Your task to perform on an android device: Turn off the flashlight Image 0: 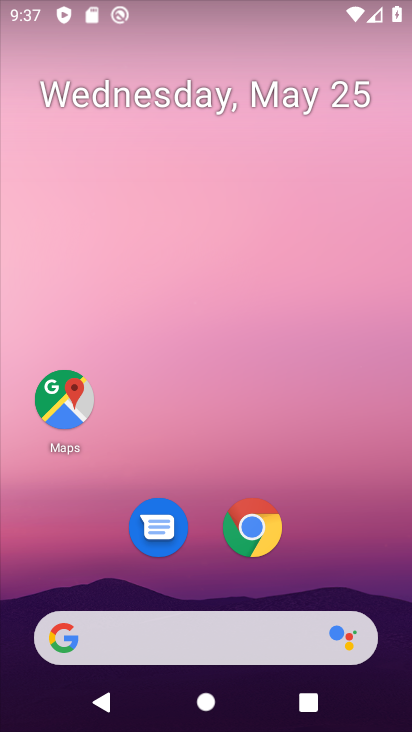
Step 0: drag from (333, 538) to (266, 76)
Your task to perform on an android device: Turn off the flashlight Image 1: 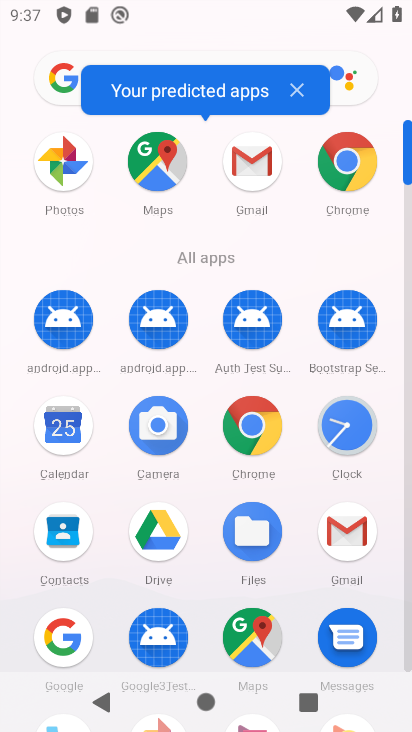
Step 1: drag from (203, 538) to (235, 270)
Your task to perform on an android device: Turn off the flashlight Image 2: 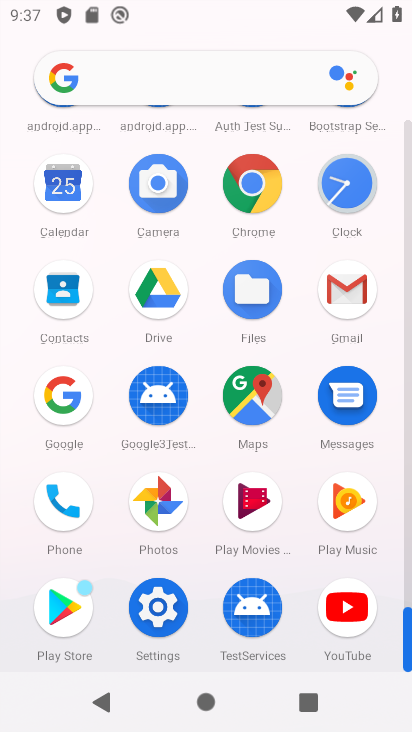
Step 2: click (156, 607)
Your task to perform on an android device: Turn off the flashlight Image 3: 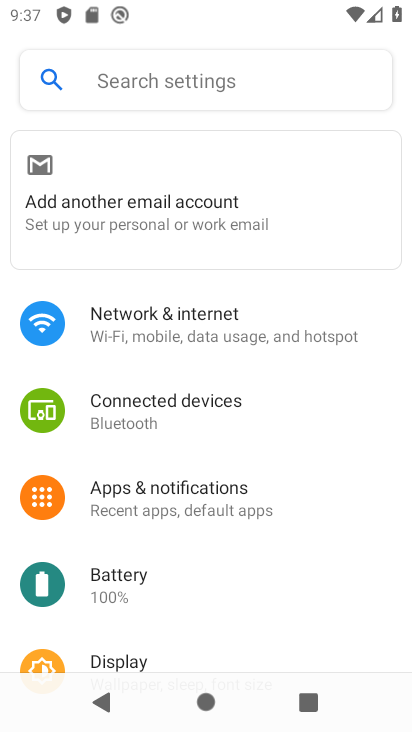
Step 3: drag from (183, 551) to (281, 439)
Your task to perform on an android device: Turn off the flashlight Image 4: 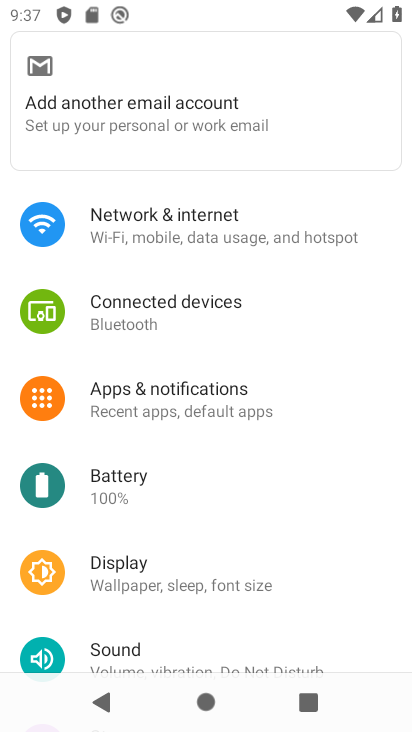
Step 4: click (236, 584)
Your task to perform on an android device: Turn off the flashlight Image 5: 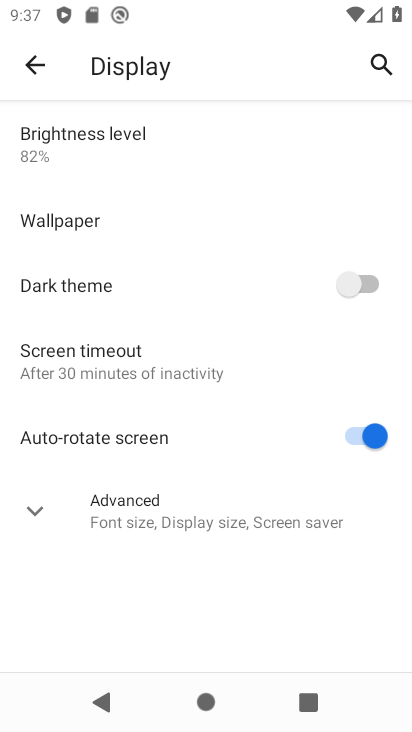
Step 5: press back button
Your task to perform on an android device: Turn off the flashlight Image 6: 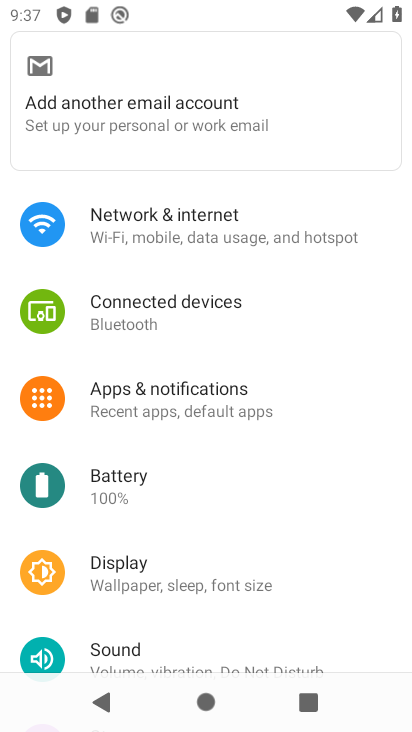
Step 6: drag from (210, 544) to (284, 425)
Your task to perform on an android device: Turn off the flashlight Image 7: 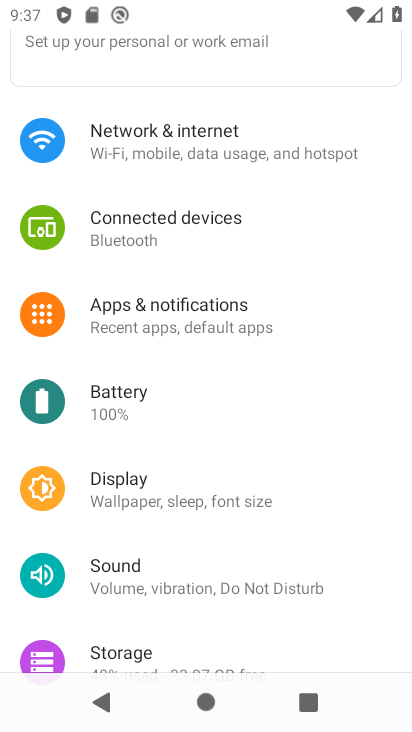
Step 7: drag from (175, 605) to (281, 479)
Your task to perform on an android device: Turn off the flashlight Image 8: 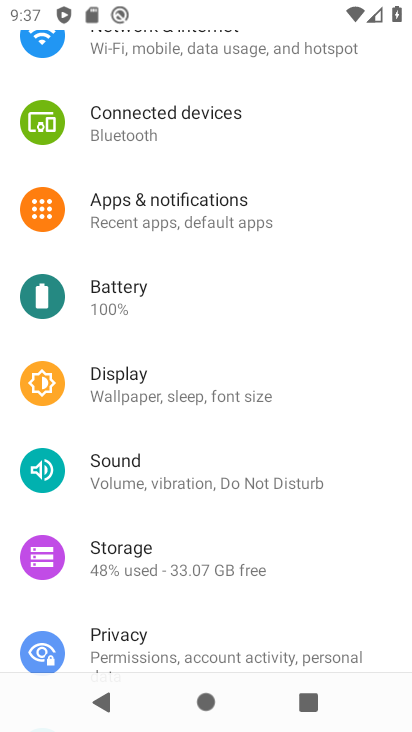
Step 8: drag from (174, 609) to (269, 504)
Your task to perform on an android device: Turn off the flashlight Image 9: 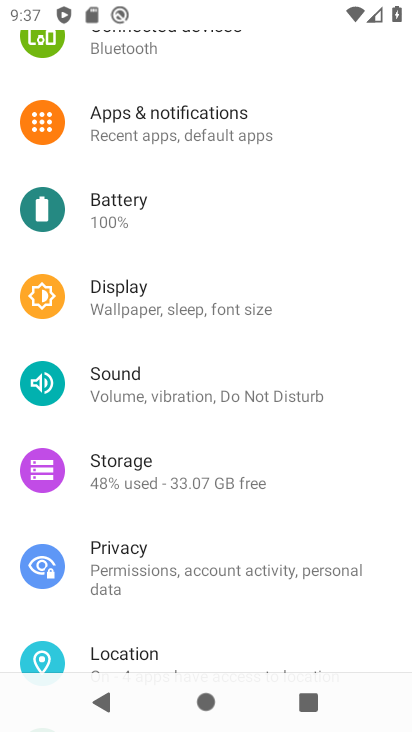
Step 9: drag from (167, 597) to (244, 504)
Your task to perform on an android device: Turn off the flashlight Image 10: 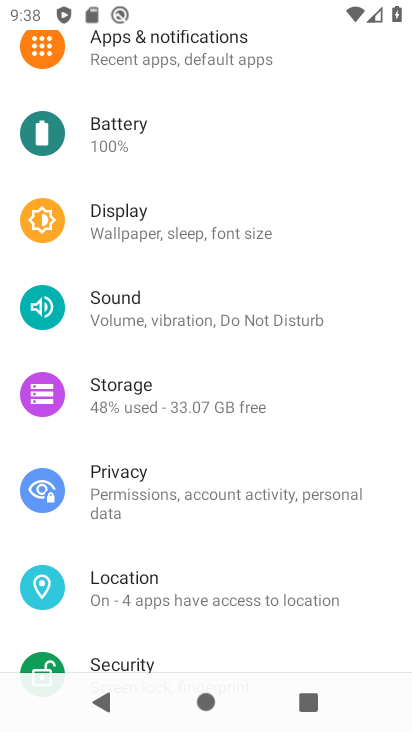
Step 10: drag from (154, 622) to (247, 501)
Your task to perform on an android device: Turn off the flashlight Image 11: 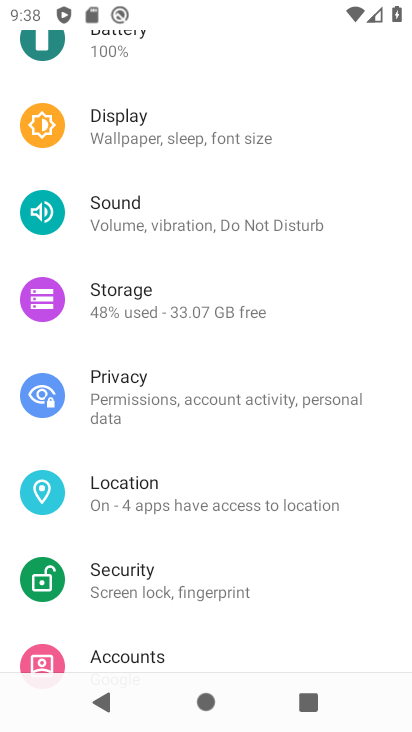
Step 11: drag from (121, 619) to (260, 470)
Your task to perform on an android device: Turn off the flashlight Image 12: 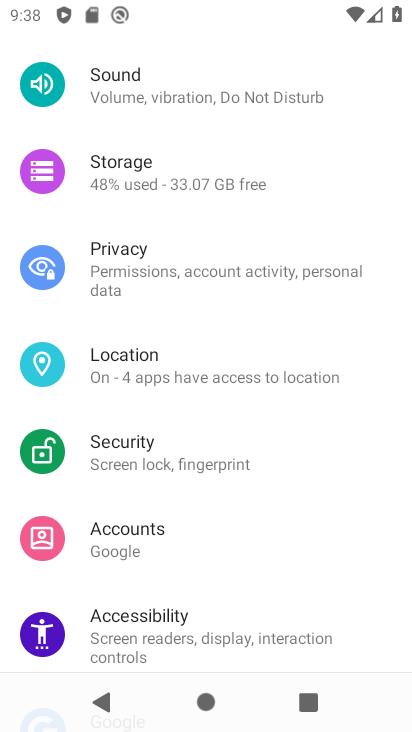
Step 12: drag from (129, 577) to (200, 475)
Your task to perform on an android device: Turn off the flashlight Image 13: 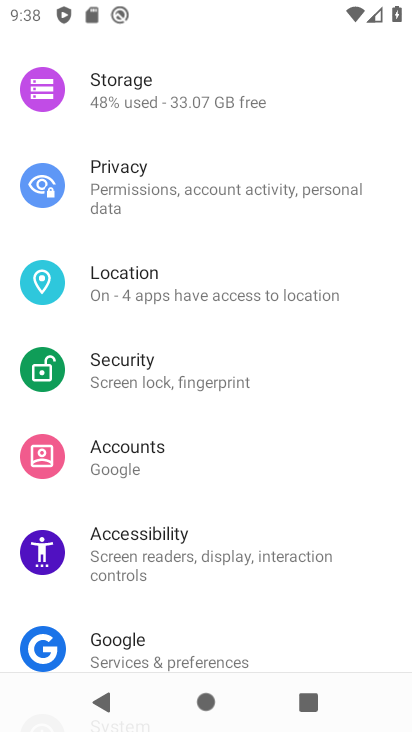
Step 13: click (179, 557)
Your task to perform on an android device: Turn off the flashlight Image 14: 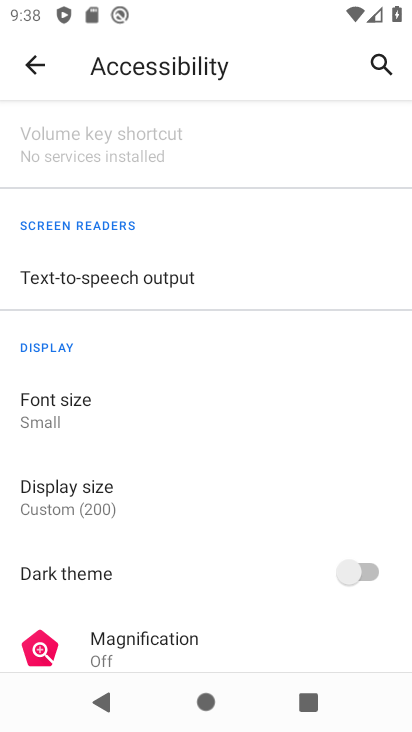
Step 14: task complete